Your task to perform on an android device: Open my contact list Image 0: 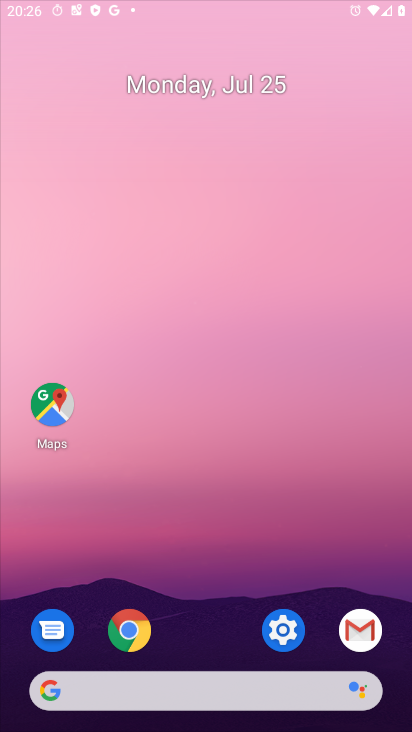
Step 0: click (271, 625)
Your task to perform on an android device: Open my contact list Image 1: 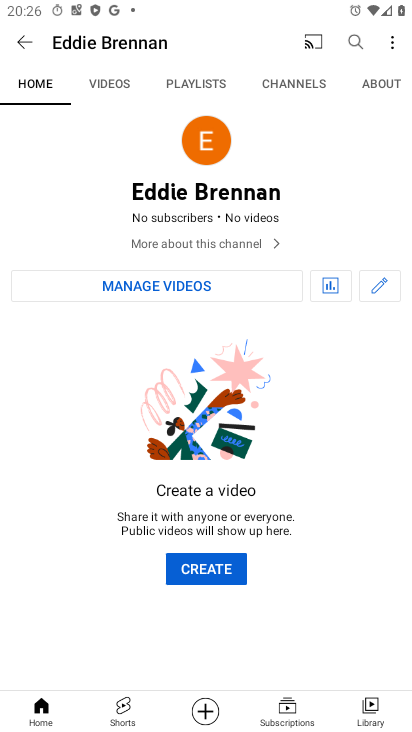
Step 1: click (356, 46)
Your task to perform on an android device: Open my contact list Image 2: 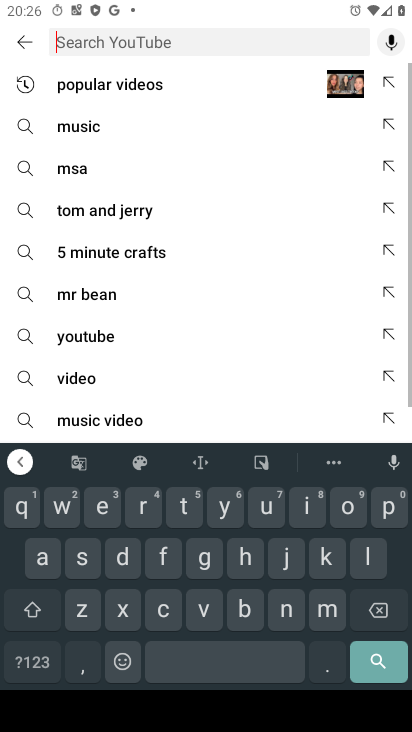
Step 2: click (156, 559)
Your task to perform on an android device: Open my contact list Image 3: 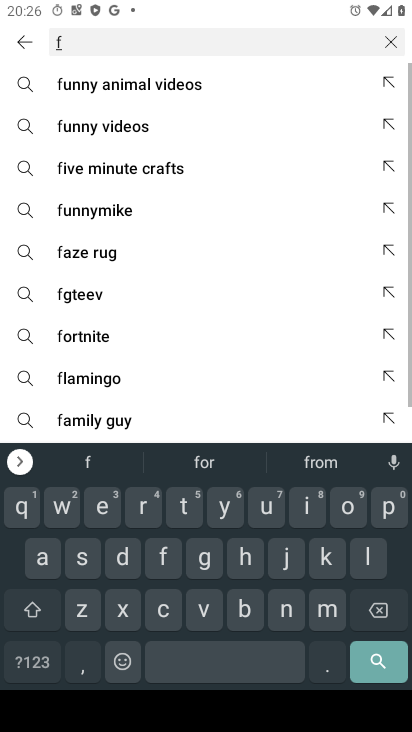
Step 3: click (370, 557)
Your task to perform on an android device: Open my contact list Image 4: 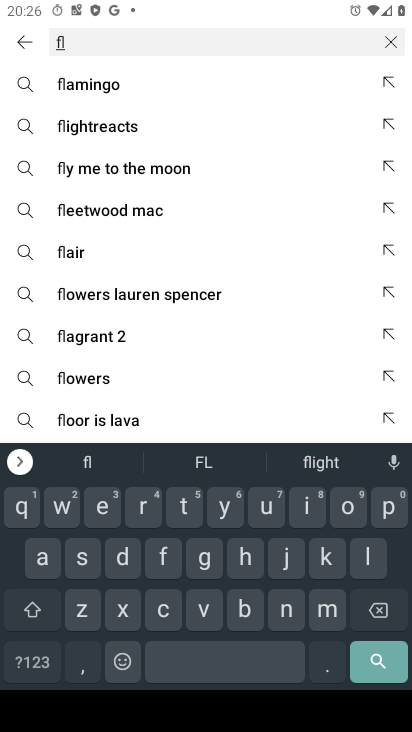
Step 4: press home button
Your task to perform on an android device: Open my contact list Image 5: 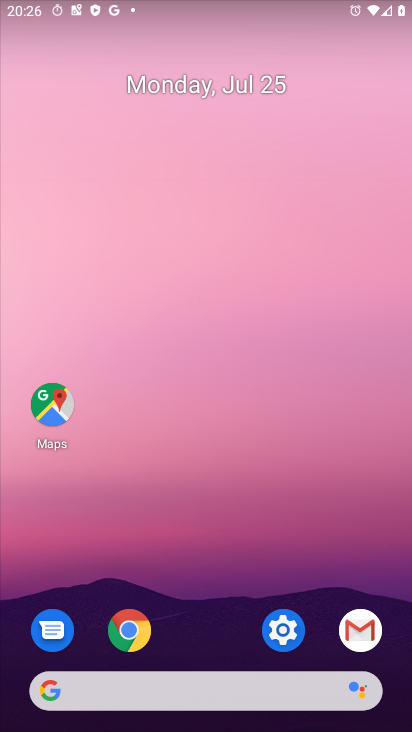
Step 5: drag from (233, 599) to (219, 174)
Your task to perform on an android device: Open my contact list Image 6: 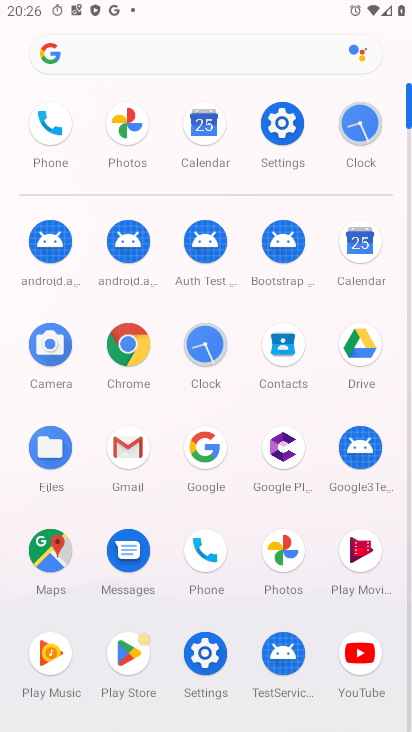
Step 6: click (209, 549)
Your task to perform on an android device: Open my contact list Image 7: 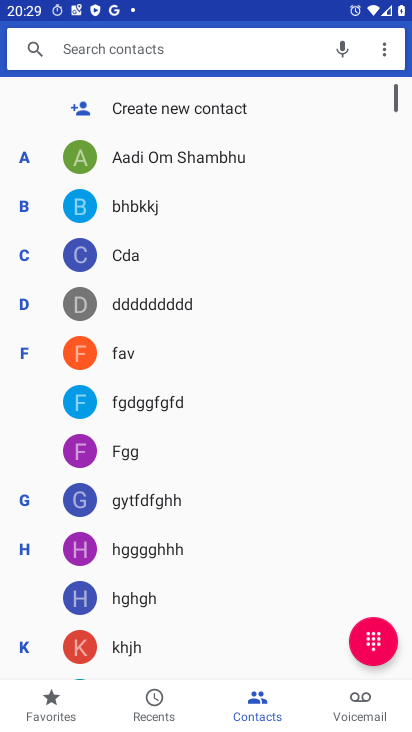
Step 7: task complete